Your task to perform on an android device: open app "Google Docs" (install if not already installed) Image 0: 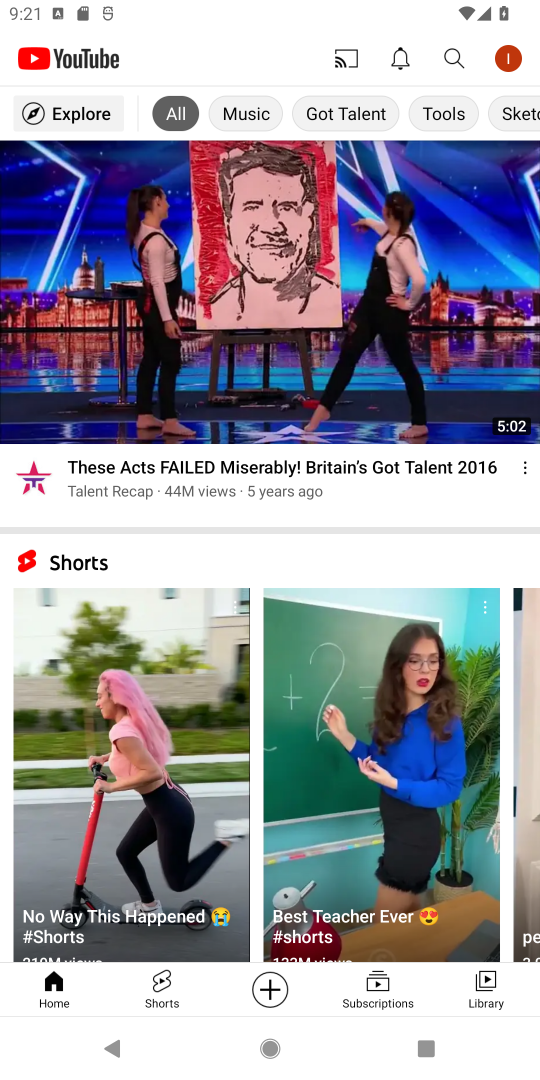
Step 0: press home button
Your task to perform on an android device: open app "Google Docs" (install if not already installed) Image 1: 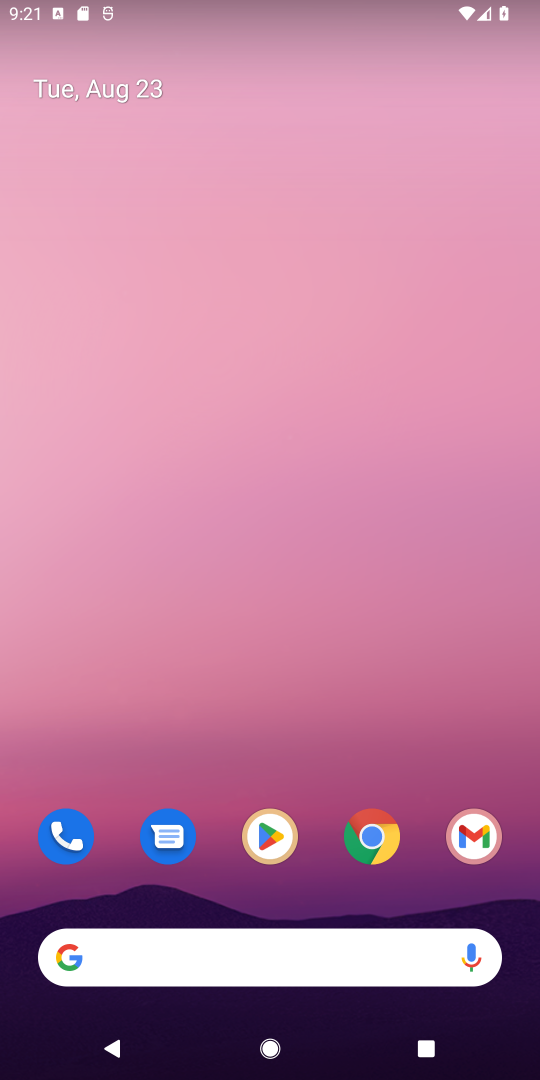
Step 1: click (263, 833)
Your task to perform on an android device: open app "Google Docs" (install if not already installed) Image 2: 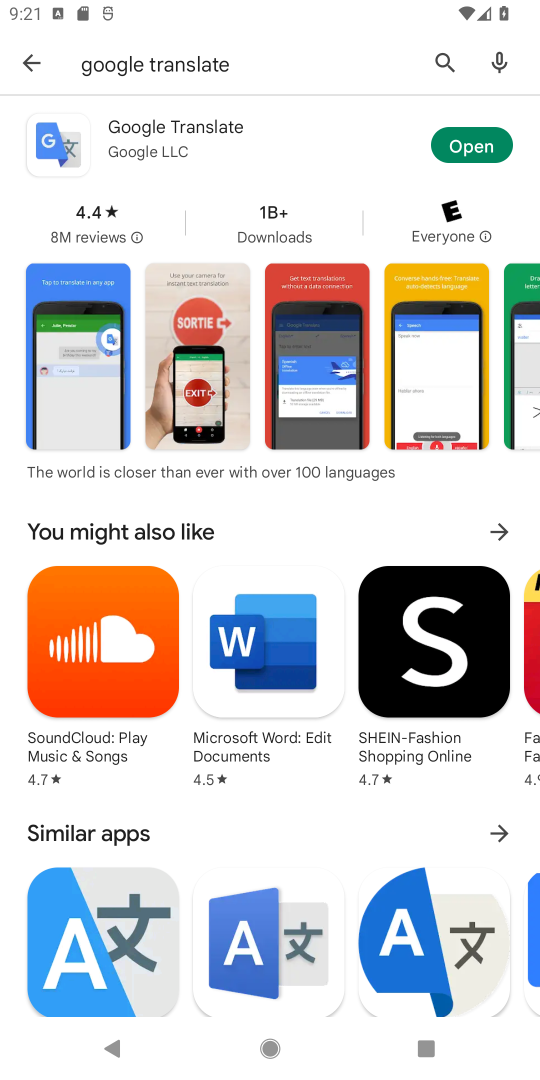
Step 2: click (454, 52)
Your task to perform on an android device: open app "Google Docs" (install if not already installed) Image 3: 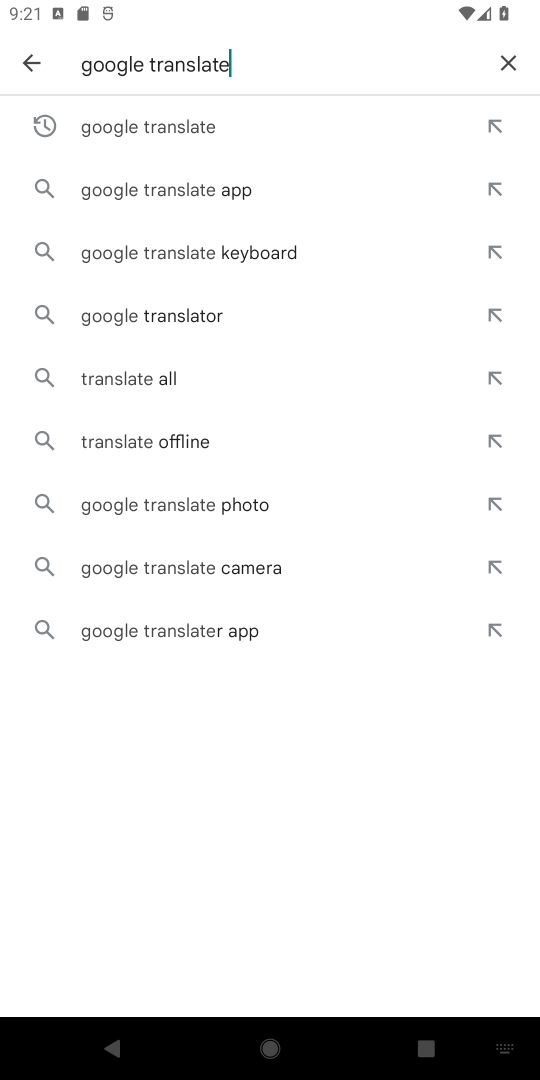
Step 3: click (502, 56)
Your task to perform on an android device: open app "Google Docs" (install if not already installed) Image 4: 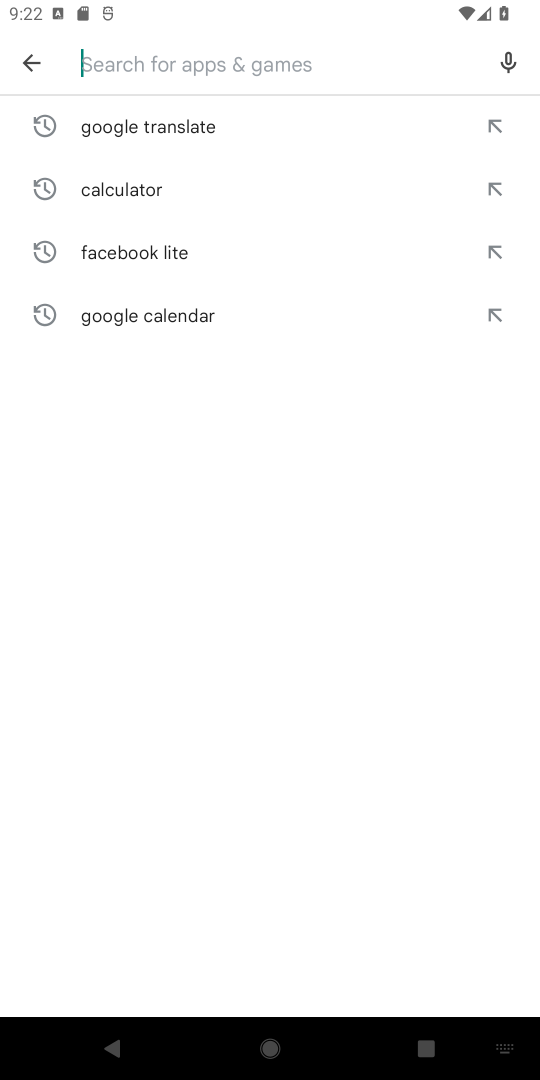
Step 4: type "Google Docs"
Your task to perform on an android device: open app "Google Docs" (install if not already installed) Image 5: 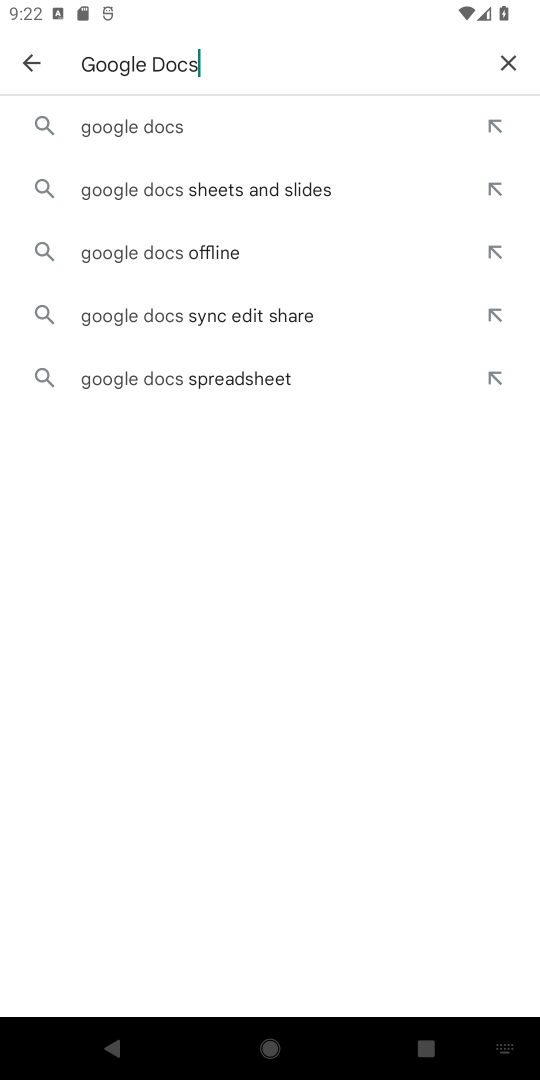
Step 5: click (162, 124)
Your task to perform on an android device: open app "Google Docs" (install if not already installed) Image 6: 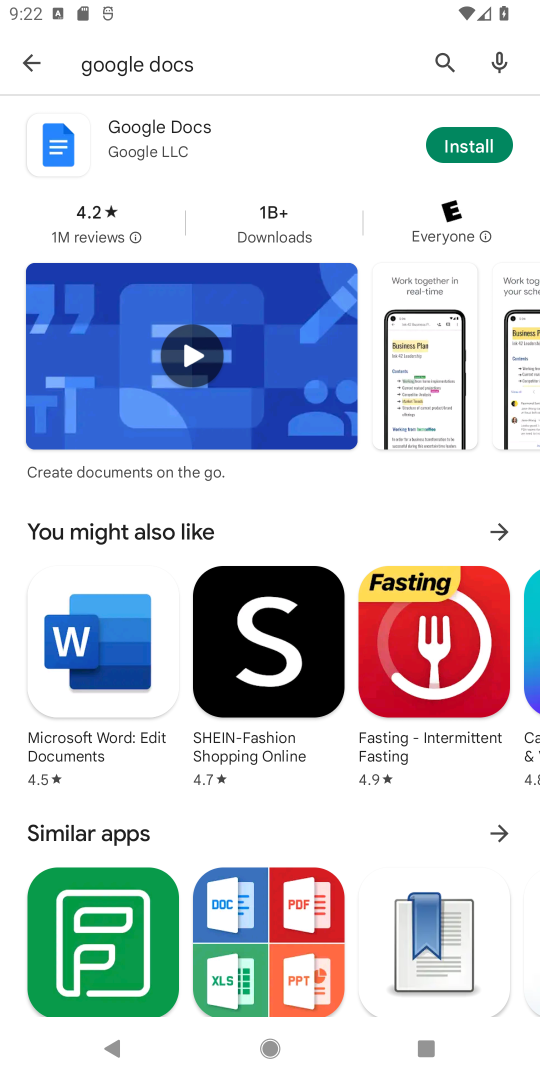
Step 6: click (477, 140)
Your task to perform on an android device: open app "Google Docs" (install if not already installed) Image 7: 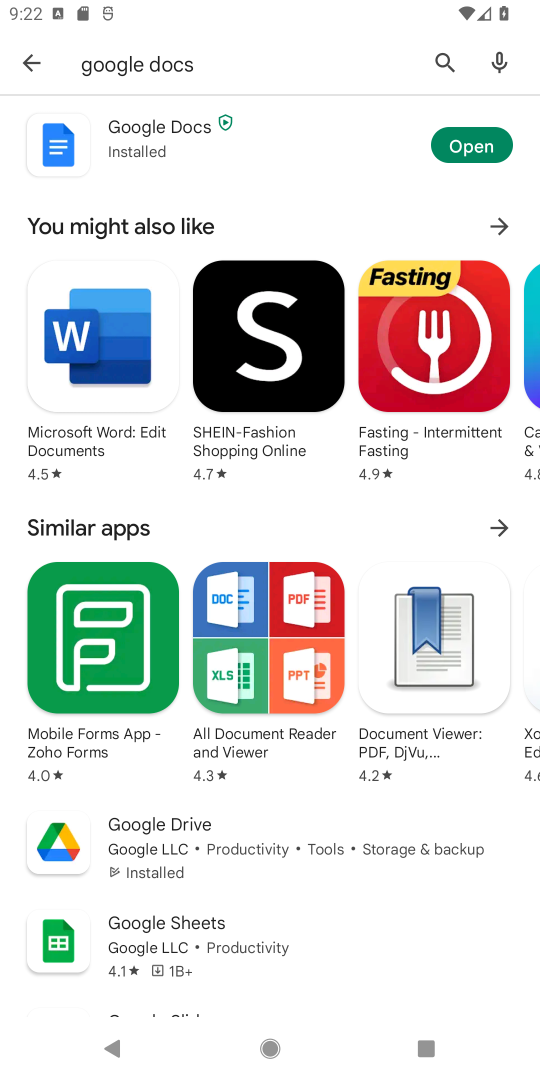
Step 7: click (486, 139)
Your task to perform on an android device: open app "Google Docs" (install if not already installed) Image 8: 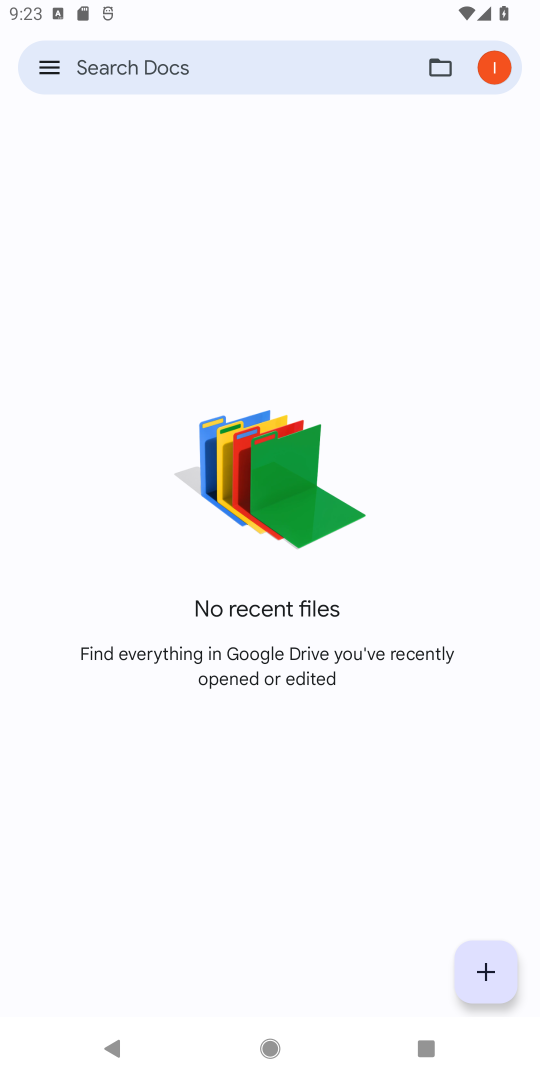
Step 8: task complete